Your task to perform on an android device: open a new tab in the chrome app Image 0: 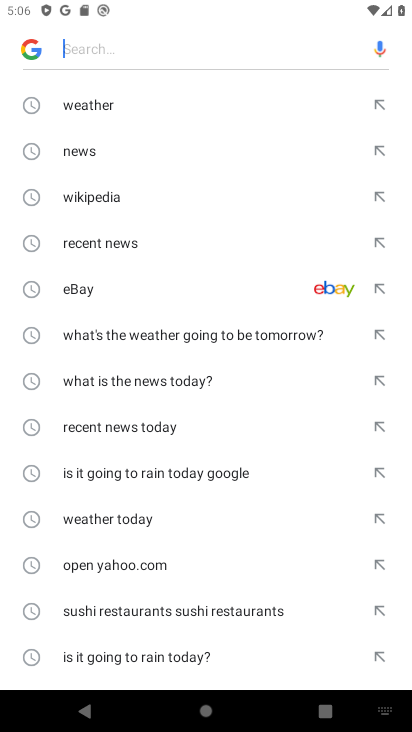
Step 0: press home button
Your task to perform on an android device: open a new tab in the chrome app Image 1: 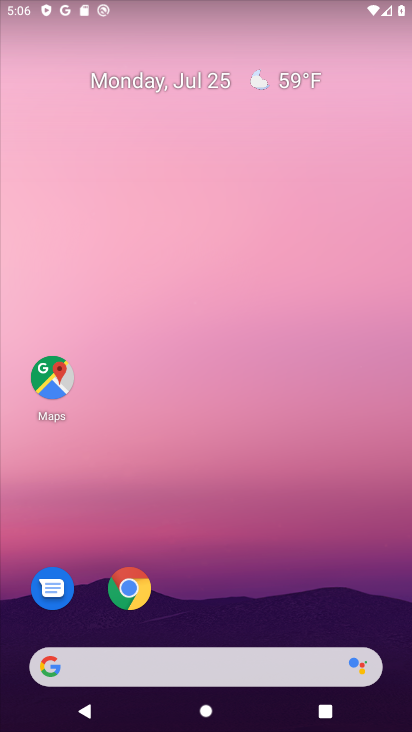
Step 1: click (125, 594)
Your task to perform on an android device: open a new tab in the chrome app Image 2: 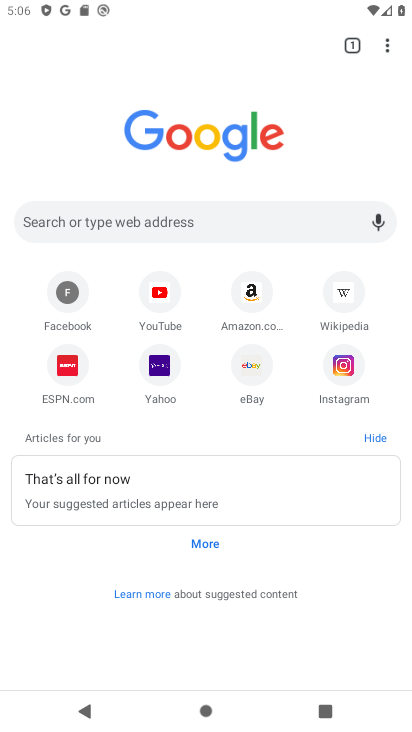
Step 2: click (349, 49)
Your task to perform on an android device: open a new tab in the chrome app Image 3: 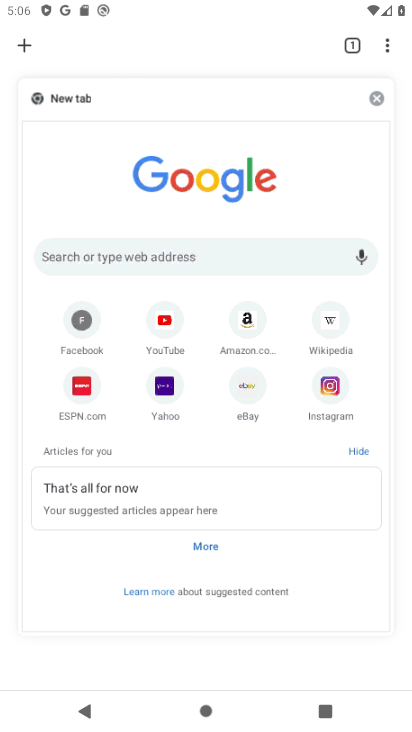
Step 3: click (20, 47)
Your task to perform on an android device: open a new tab in the chrome app Image 4: 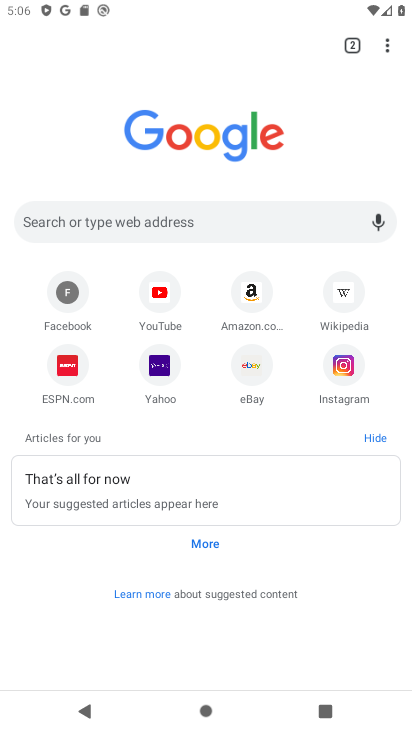
Step 4: task complete